Your task to perform on an android device: check android version Image 0: 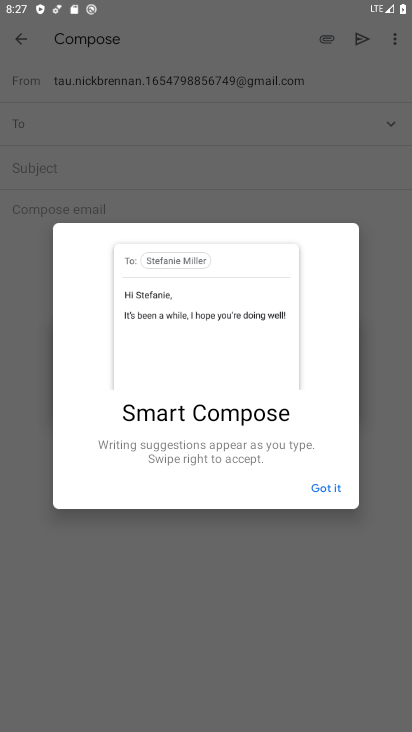
Step 0: press home button
Your task to perform on an android device: check android version Image 1: 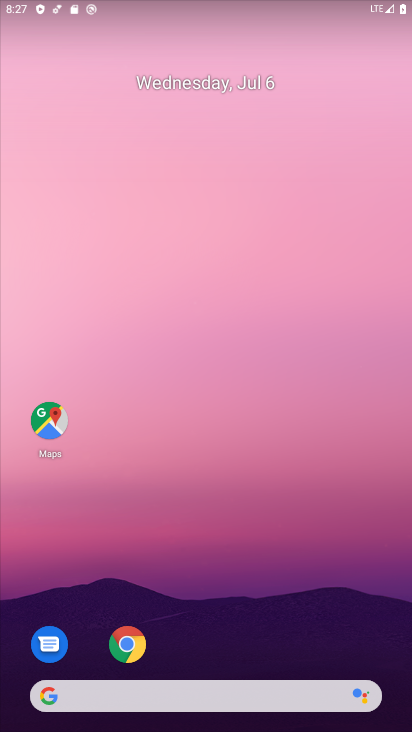
Step 1: drag from (224, 630) to (243, 155)
Your task to perform on an android device: check android version Image 2: 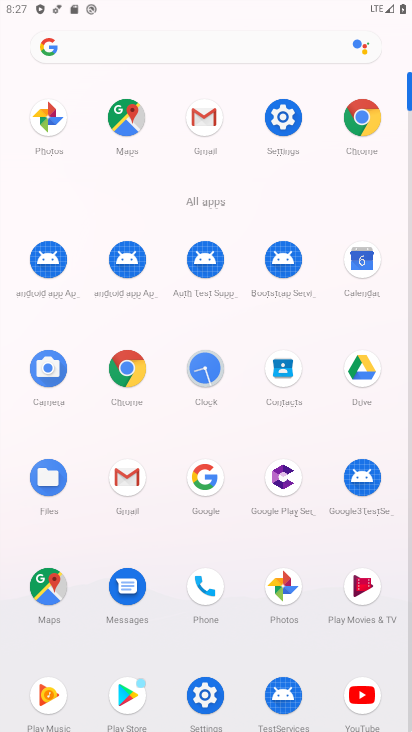
Step 2: click (276, 117)
Your task to perform on an android device: check android version Image 3: 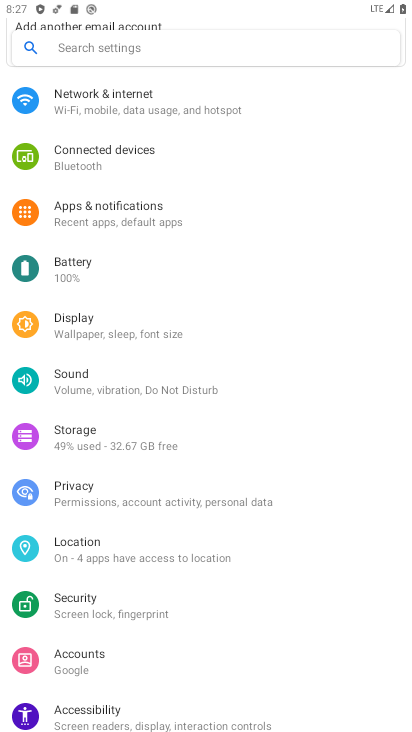
Step 3: drag from (251, 651) to (263, 68)
Your task to perform on an android device: check android version Image 4: 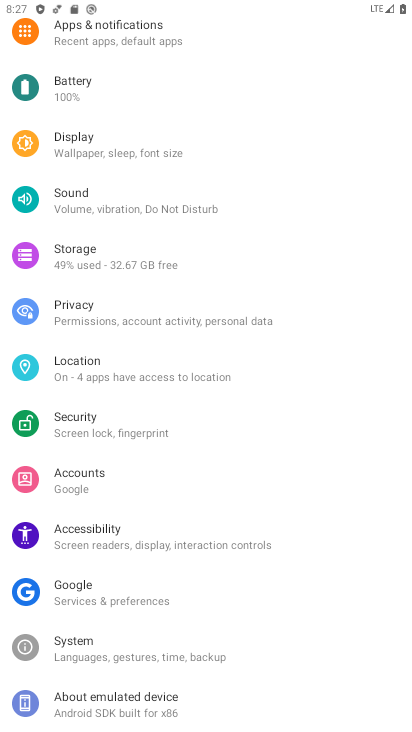
Step 4: drag from (240, 625) to (221, 237)
Your task to perform on an android device: check android version Image 5: 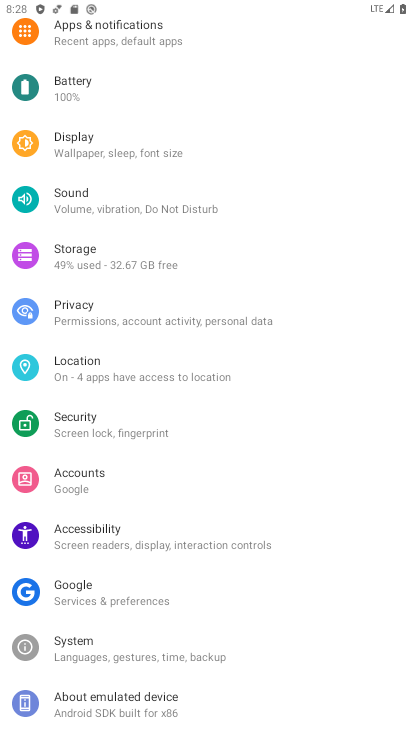
Step 5: click (226, 713)
Your task to perform on an android device: check android version Image 6: 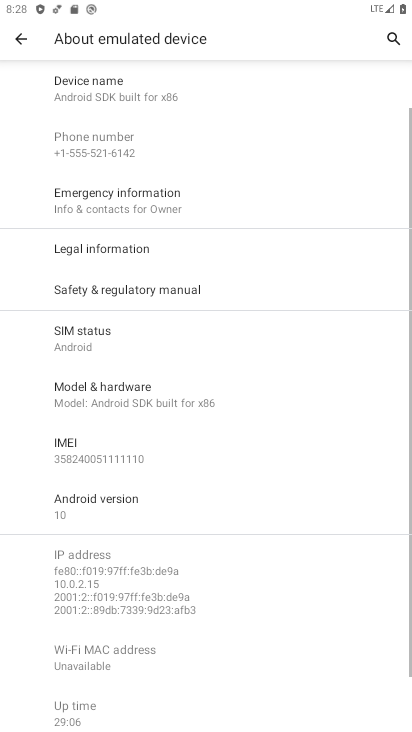
Step 6: click (136, 523)
Your task to perform on an android device: check android version Image 7: 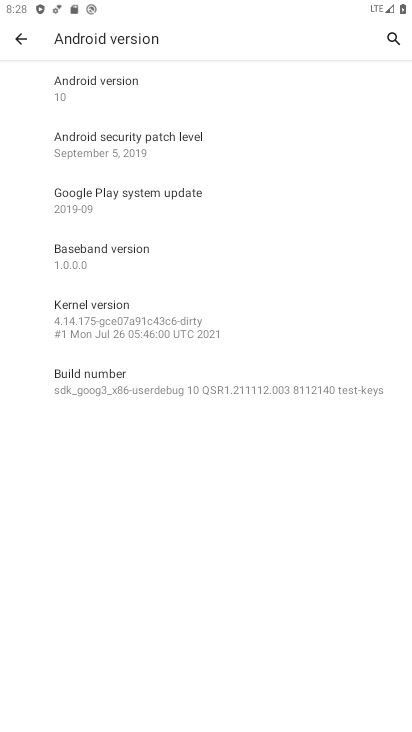
Step 7: task complete